Your task to perform on an android device: check android version Image 0: 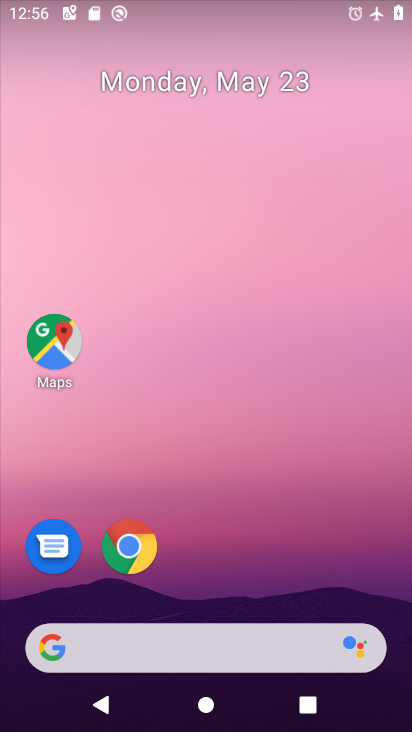
Step 0: drag from (236, 656) to (236, 58)
Your task to perform on an android device: check android version Image 1: 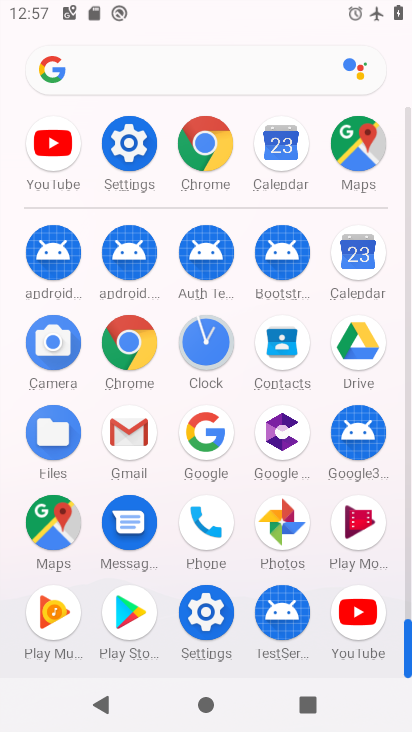
Step 1: click (137, 164)
Your task to perform on an android device: check android version Image 2: 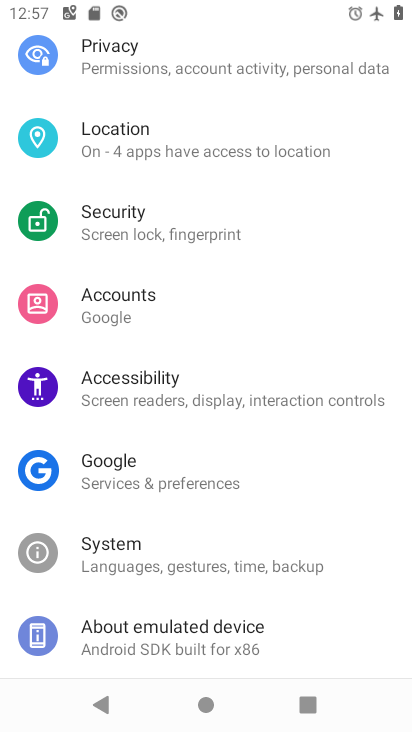
Step 2: click (187, 622)
Your task to perform on an android device: check android version Image 3: 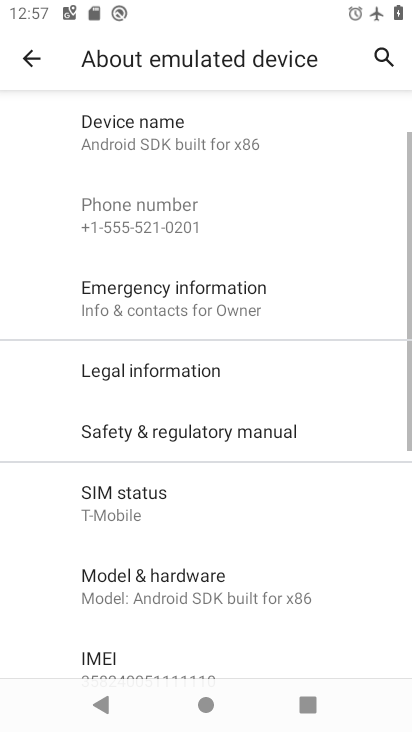
Step 3: drag from (194, 565) to (224, 199)
Your task to perform on an android device: check android version Image 4: 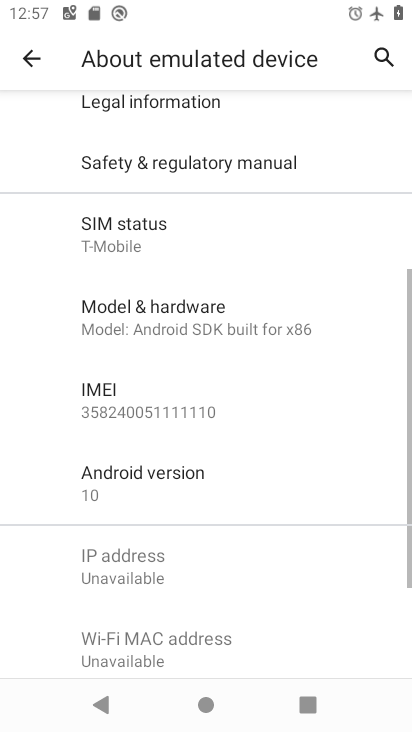
Step 4: click (194, 496)
Your task to perform on an android device: check android version Image 5: 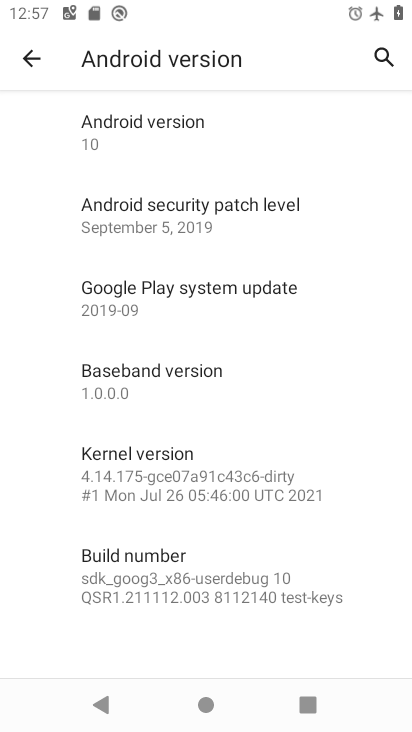
Step 5: task complete